Your task to perform on an android device: Show me recent news Image 0: 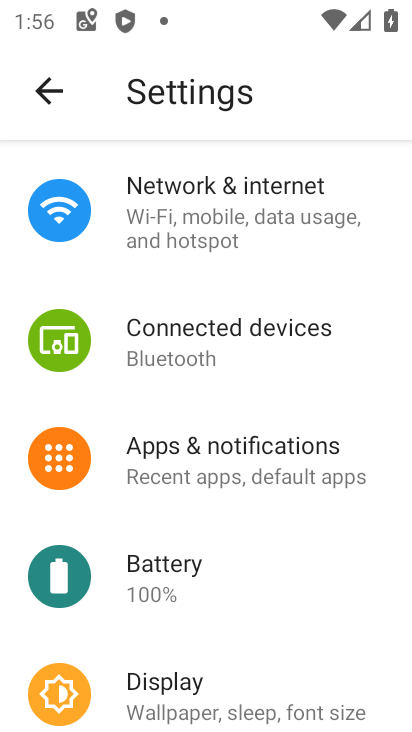
Step 0: press home button
Your task to perform on an android device: Show me recent news Image 1: 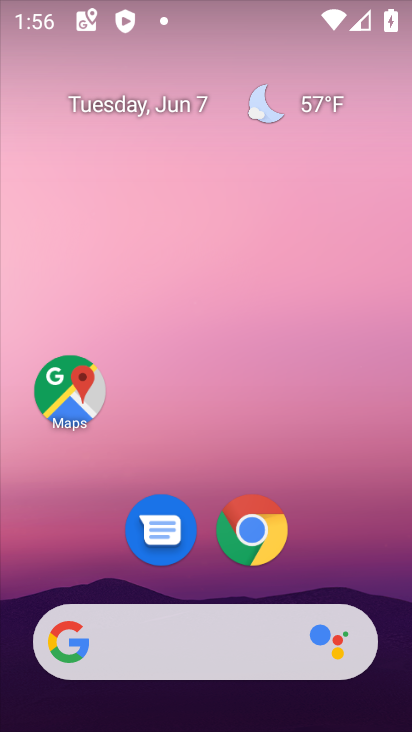
Step 1: drag from (330, 528) to (273, 116)
Your task to perform on an android device: Show me recent news Image 2: 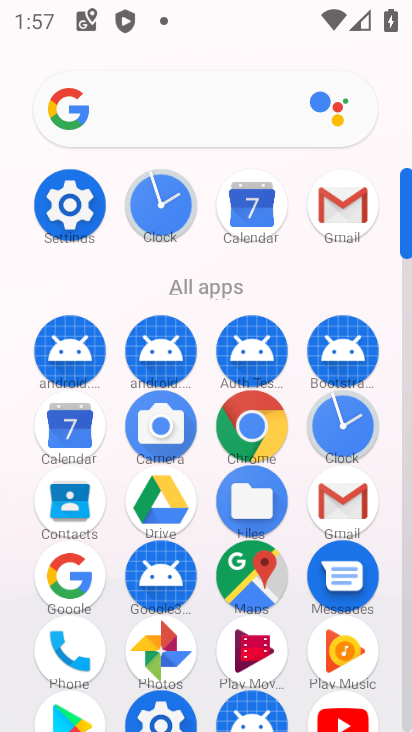
Step 2: click (71, 571)
Your task to perform on an android device: Show me recent news Image 3: 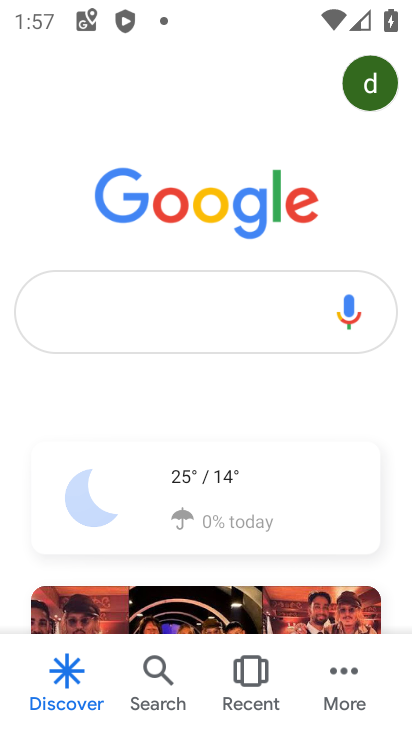
Step 3: click (194, 292)
Your task to perform on an android device: Show me recent news Image 4: 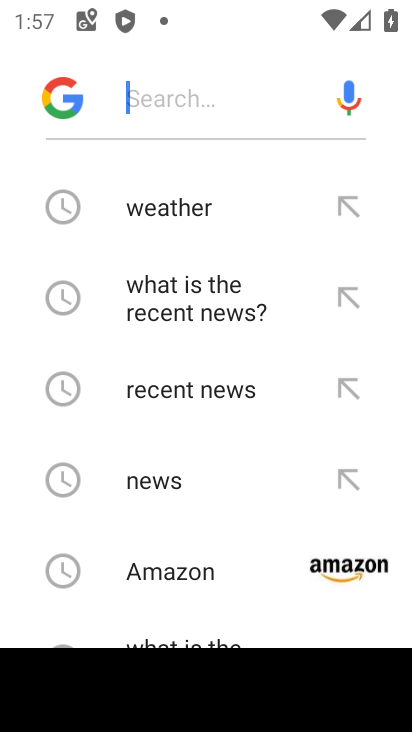
Step 4: click (199, 404)
Your task to perform on an android device: Show me recent news Image 5: 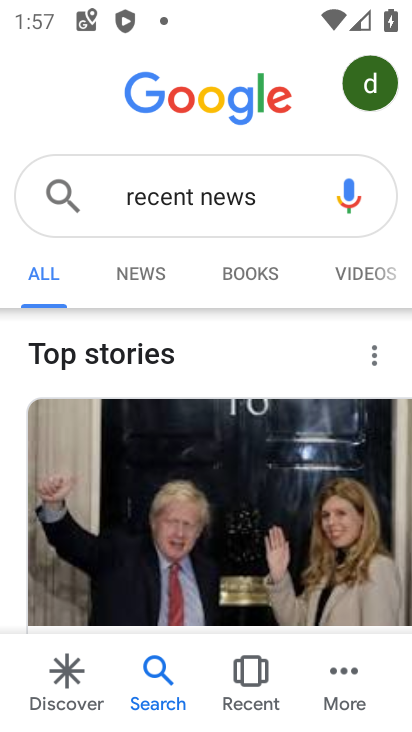
Step 5: task complete